Your task to perform on an android device: turn off sleep mode Image 0: 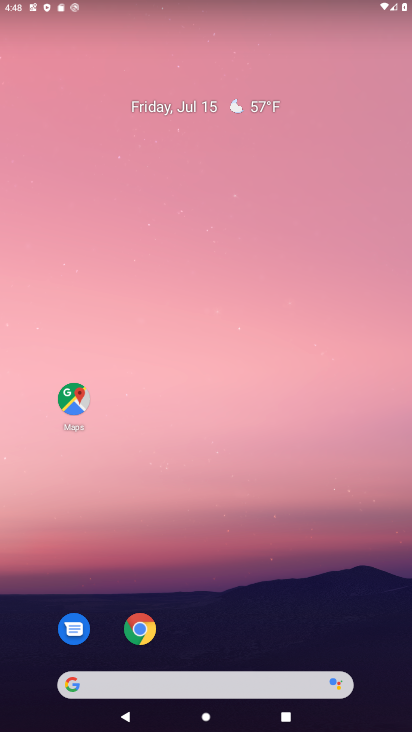
Step 0: press home button
Your task to perform on an android device: turn off sleep mode Image 1: 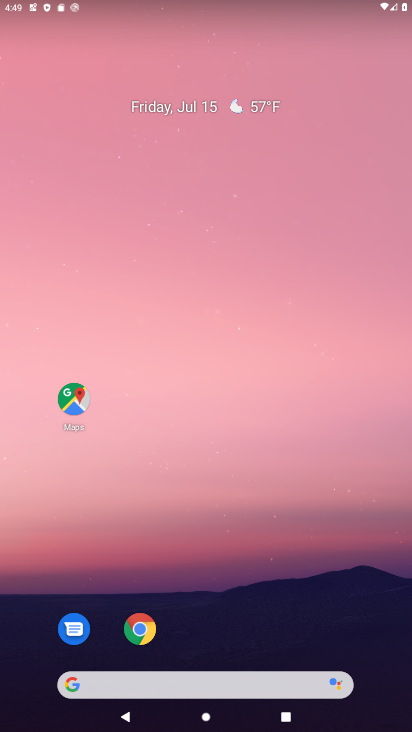
Step 1: drag from (234, 535) to (315, 7)
Your task to perform on an android device: turn off sleep mode Image 2: 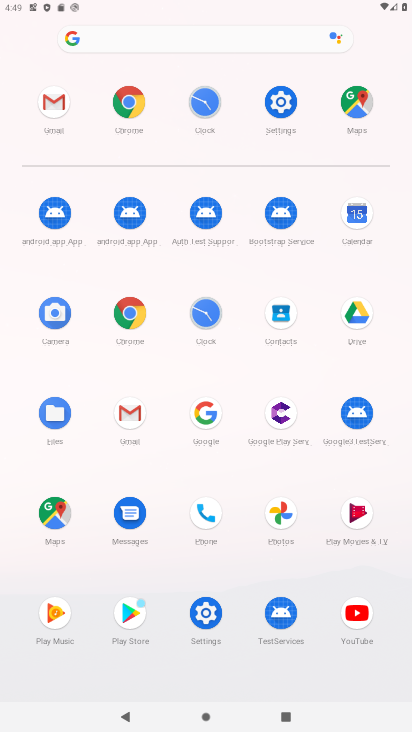
Step 2: click (283, 113)
Your task to perform on an android device: turn off sleep mode Image 3: 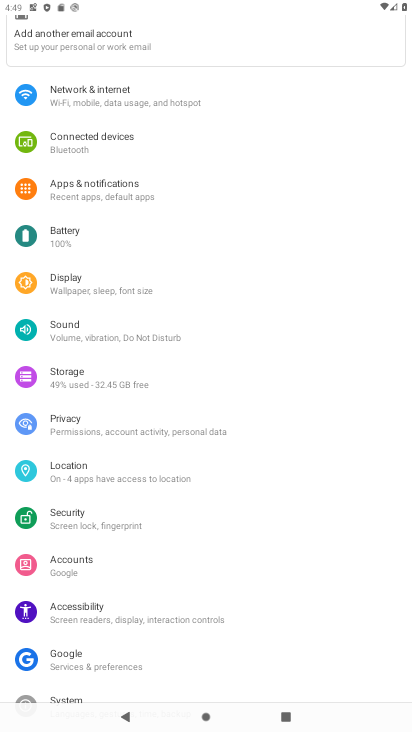
Step 3: click (80, 284)
Your task to perform on an android device: turn off sleep mode Image 4: 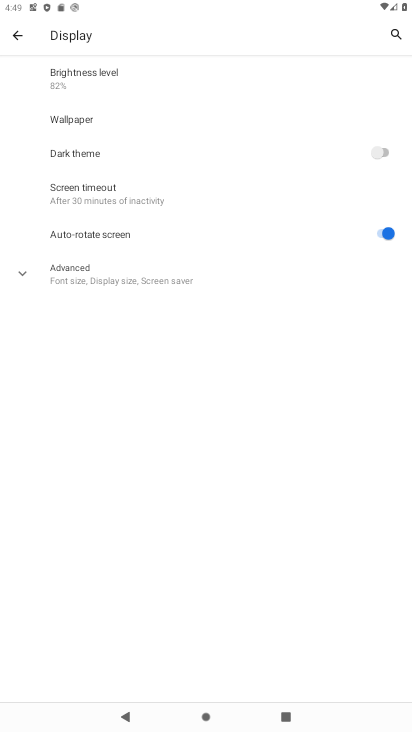
Step 4: task complete